Your task to perform on an android device: Toggle the flashlight Image 0: 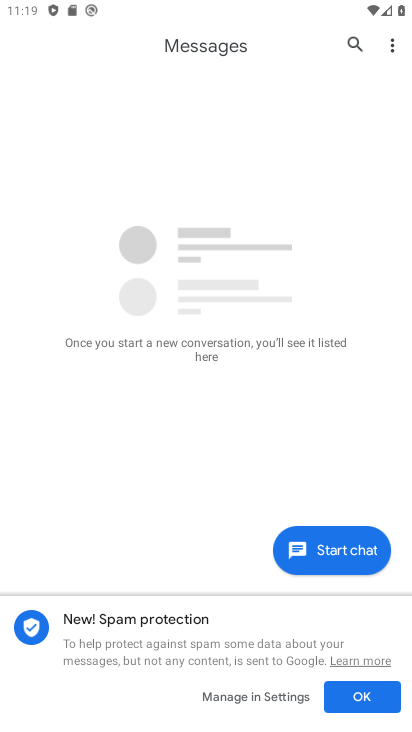
Step 0: press home button
Your task to perform on an android device: Toggle the flashlight Image 1: 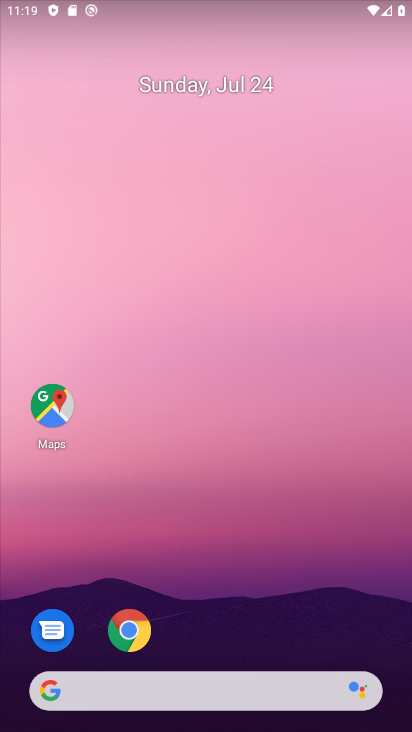
Step 1: task complete